Your task to perform on an android device: change timer sound Image 0: 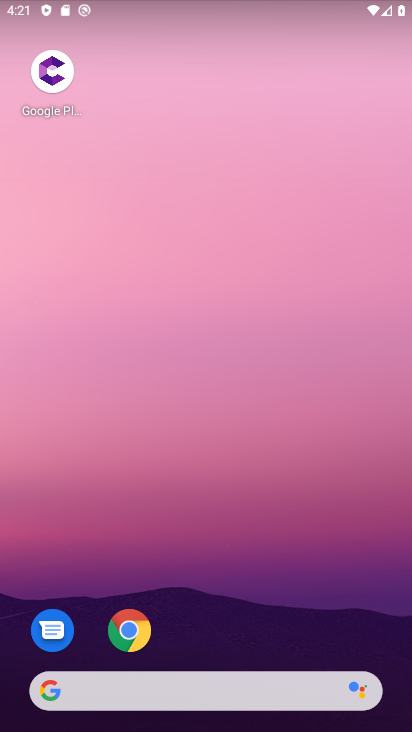
Step 0: drag from (284, 642) to (176, 226)
Your task to perform on an android device: change timer sound Image 1: 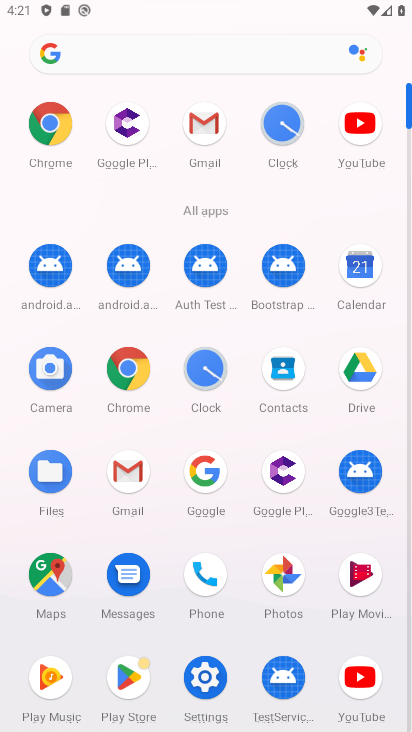
Step 1: click (280, 123)
Your task to perform on an android device: change timer sound Image 2: 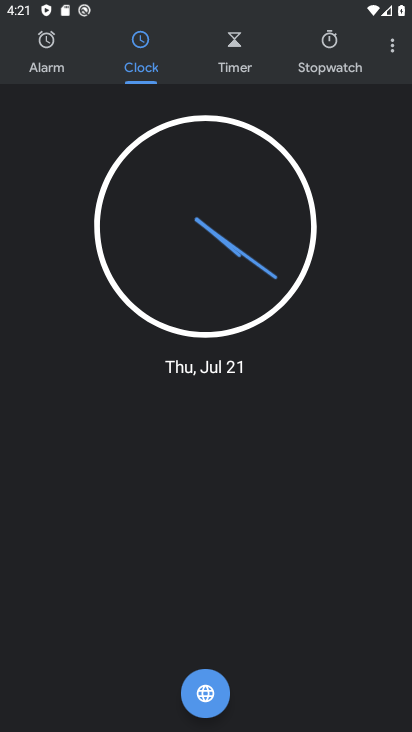
Step 2: click (392, 50)
Your task to perform on an android device: change timer sound Image 3: 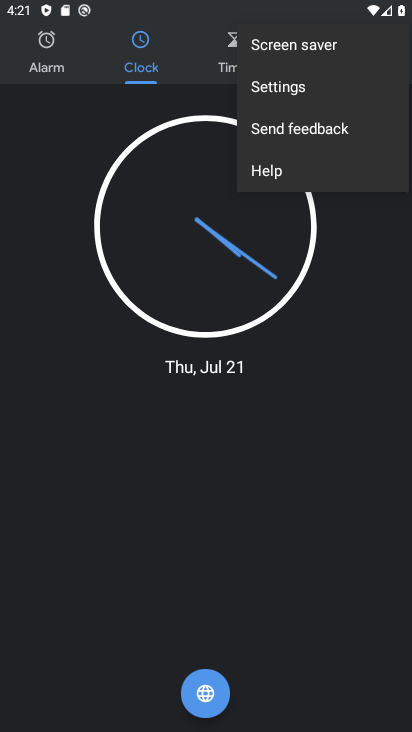
Step 3: click (349, 80)
Your task to perform on an android device: change timer sound Image 4: 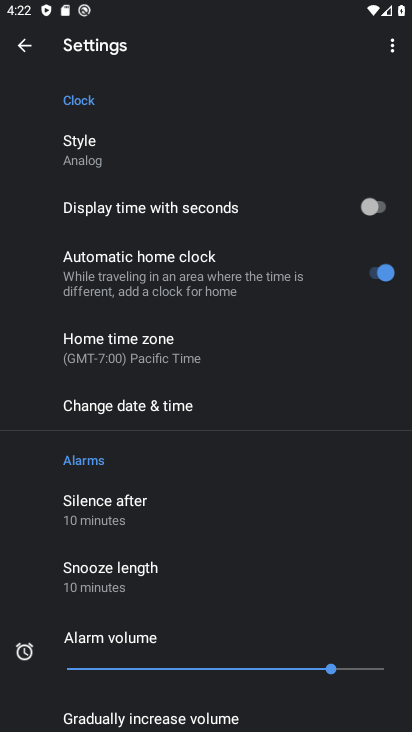
Step 4: drag from (123, 617) to (114, 316)
Your task to perform on an android device: change timer sound Image 5: 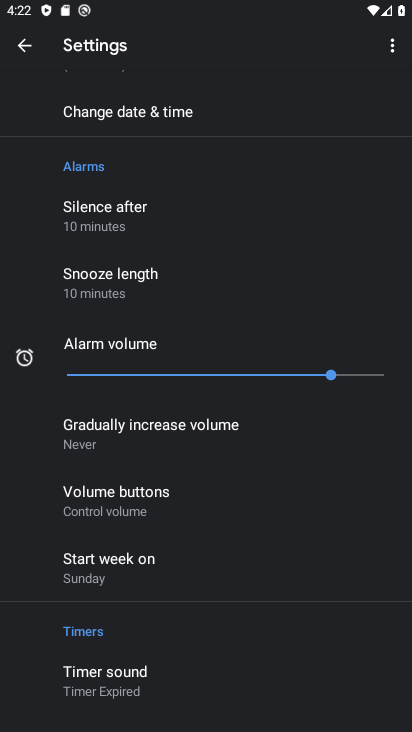
Step 5: click (145, 695)
Your task to perform on an android device: change timer sound Image 6: 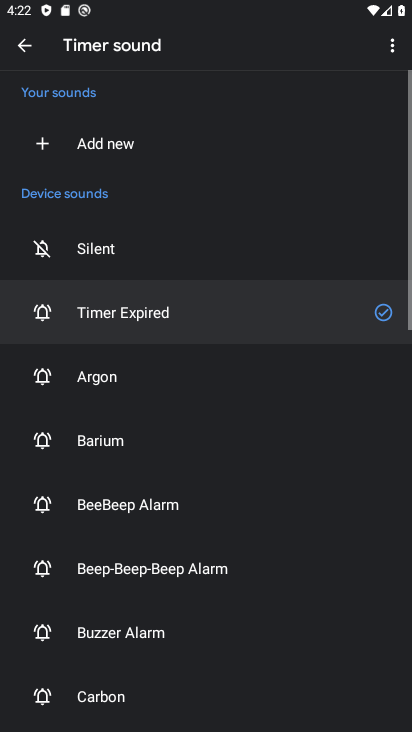
Step 6: click (165, 553)
Your task to perform on an android device: change timer sound Image 7: 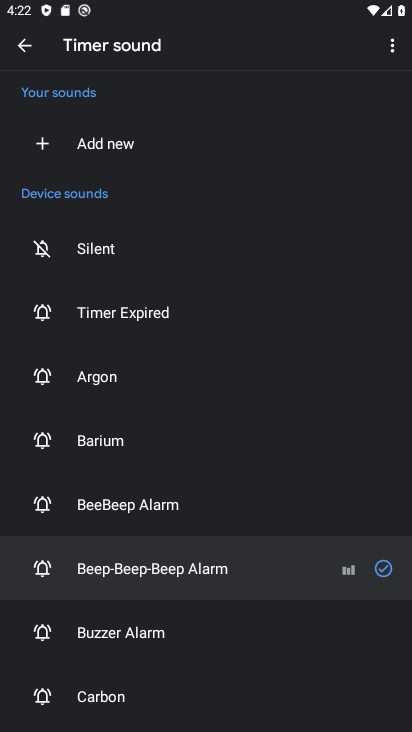
Step 7: task complete